Your task to perform on an android device: open chrome privacy settings Image 0: 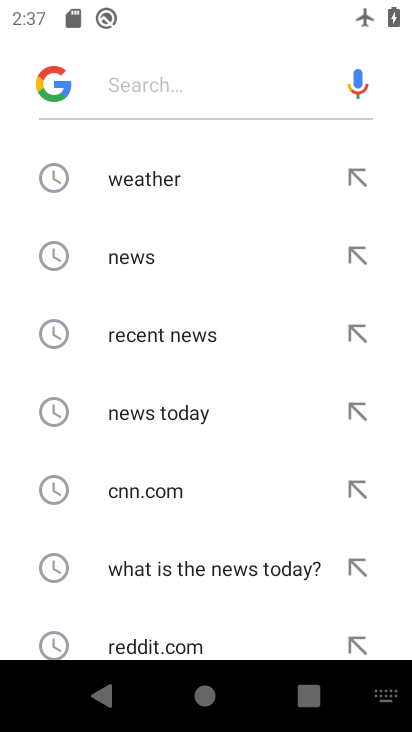
Step 0: press home button
Your task to perform on an android device: open chrome privacy settings Image 1: 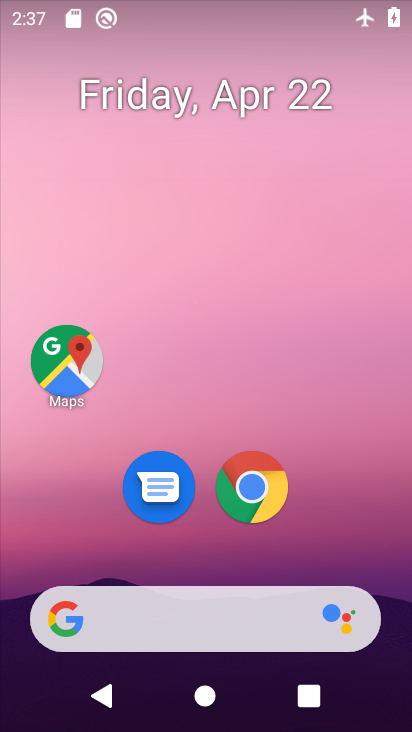
Step 1: click (249, 504)
Your task to perform on an android device: open chrome privacy settings Image 2: 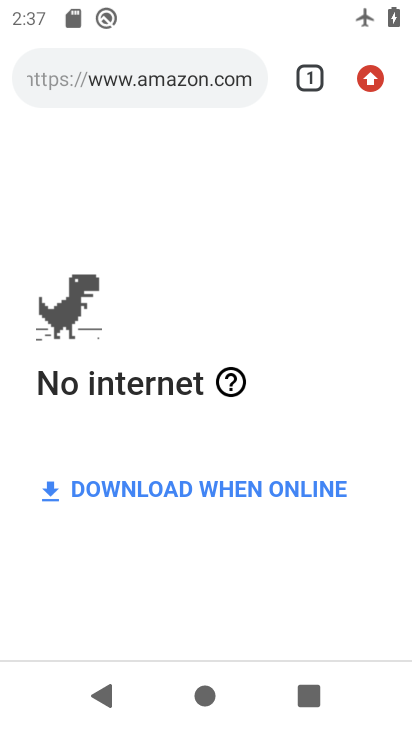
Step 2: click (363, 86)
Your task to perform on an android device: open chrome privacy settings Image 3: 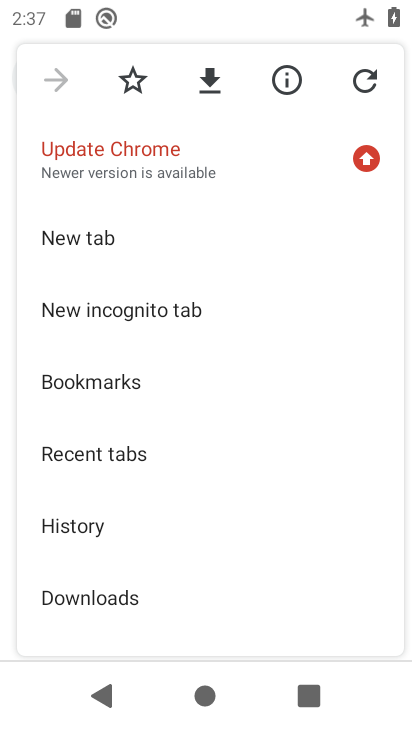
Step 3: drag from (149, 557) to (133, 270)
Your task to perform on an android device: open chrome privacy settings Image 4: 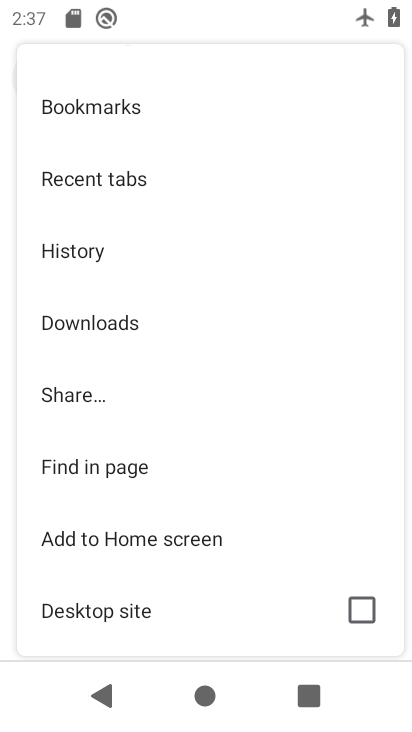
Step 4: drag from (116, 545) to (121, 322)
Your task to perform on an android device: open chrome privacy settings Image 5: 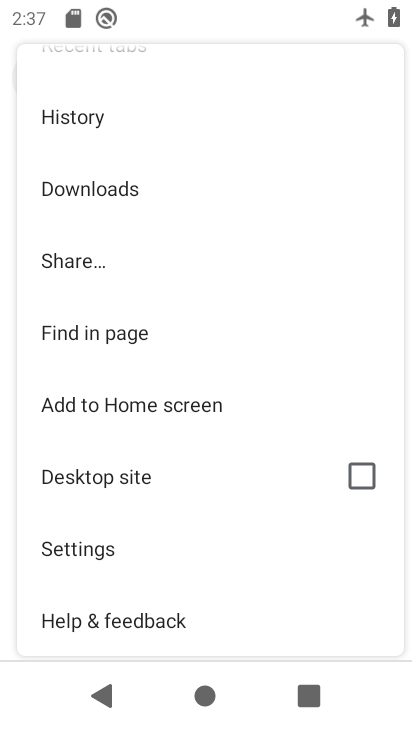
Step 5: click (134, 560)
Your task to perform on an android device: open chrome privacy settings Image 6: 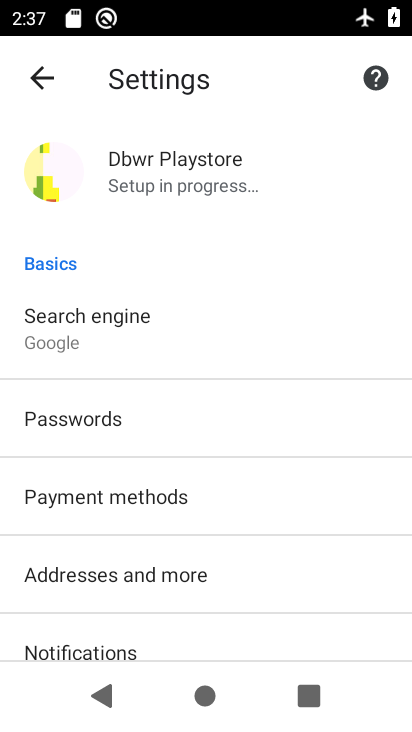
Step 6: drag from (140, 548) to (152, 281)
Your task to perform on an android device: open chrome privacy settings Image 7: 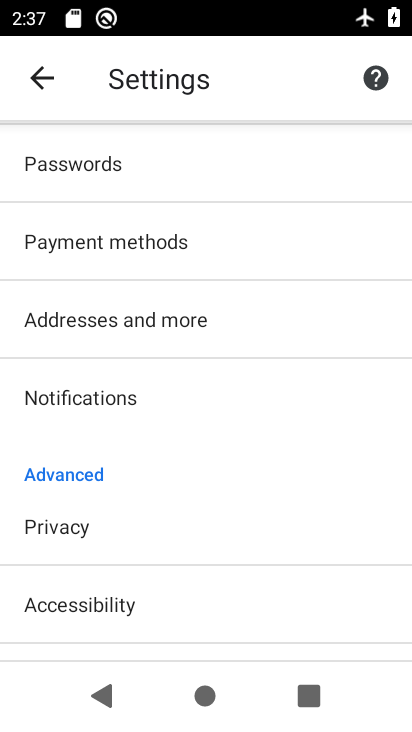
Step 7: click (126, 527)
Your task to perform on an android device: open chrome privacy settings Image 8: 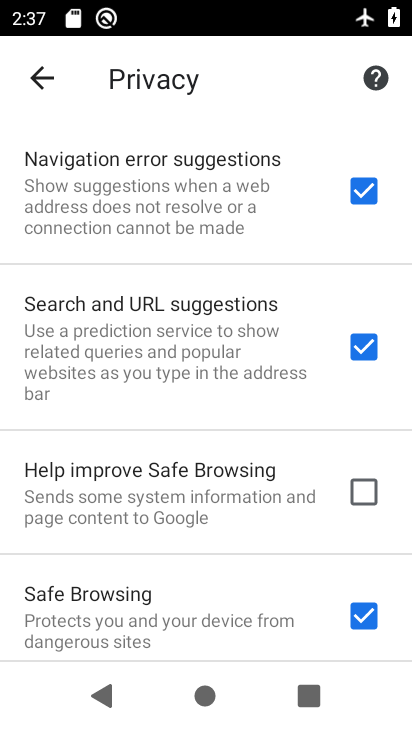
Step 8: task complete